Your task to perform on an android device: toggle wifi Image 0: 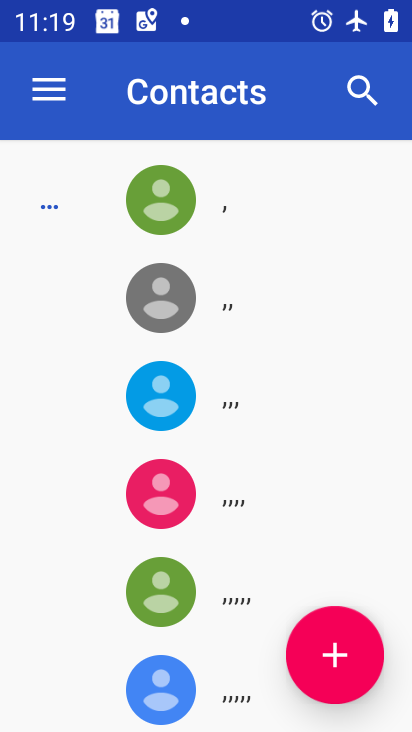
Step 0: press home button
Your task to perform on an android device: toggle wifi Image 1: 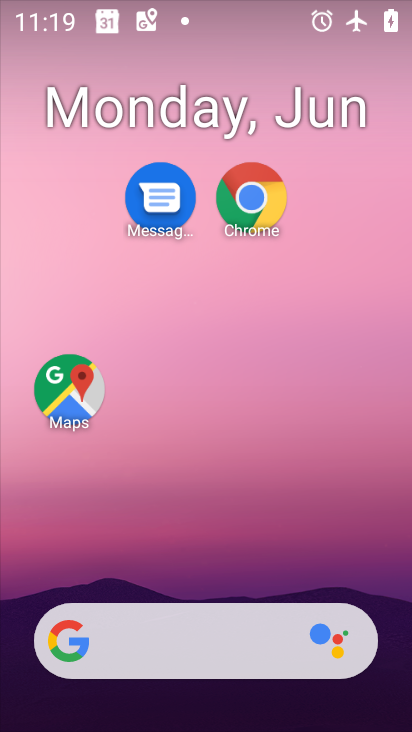
Step 1: drag from (189, 567) to (189, 10)
Your task to perform on an android device: toggle wifi Image 2: 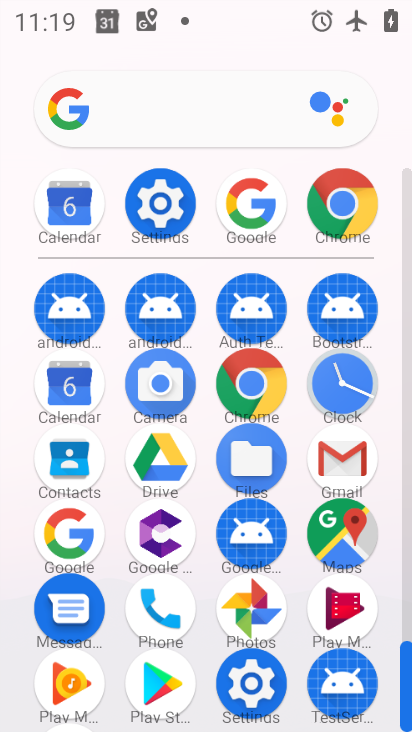
Step 2: click (155, 183)
Your task to perform on an android device: toggle wifi Image 3: 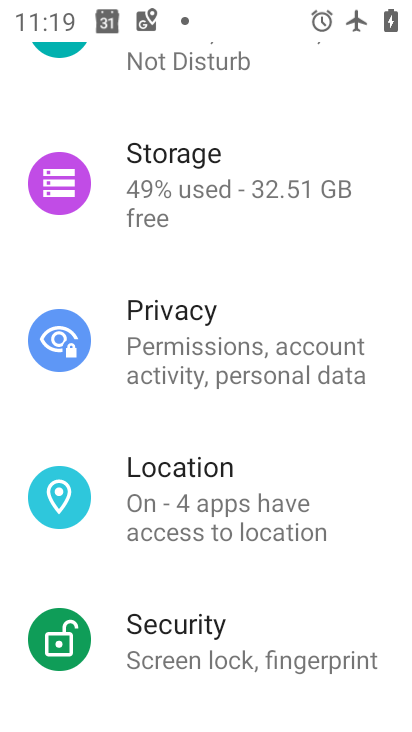
Step 3: drag from (212, 215) to (222, 496)
Your task to perform on an android device: toggle wifi Image 4: 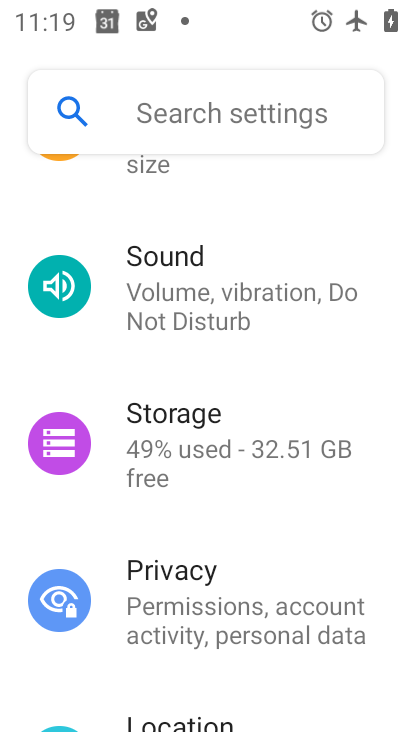
Step 4: drag from (199, 260) to (229, 492)
Your task to perform on an android device: toggle wifi Image 5: 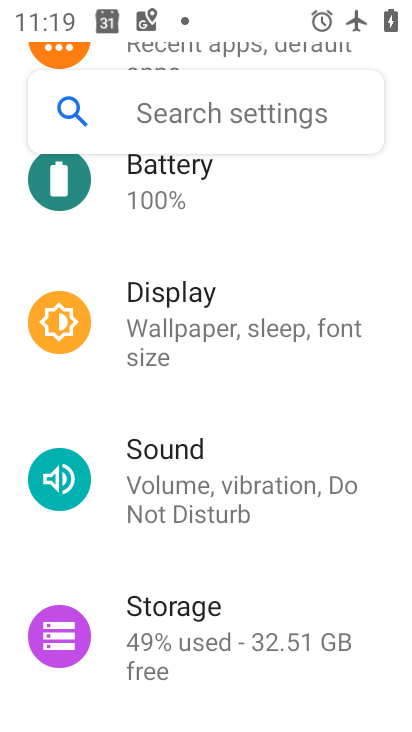
Step 5: drag from (204, 271) to (221, 490)
Your task to perform on an android device: toggle wifi Image 6: 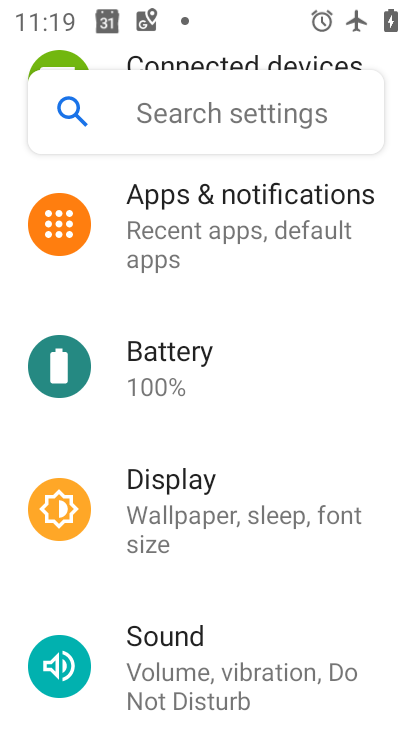
Step 6: drag from (190, 287) to (197, 503)
Your task to perform on an android device: toggle wifi Image 7: 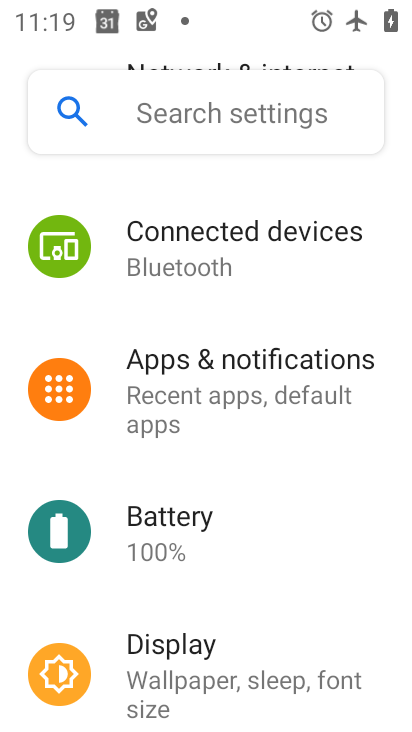
Step 7: drag from (190, 255) to (215, 561)
Your task to perform on an android device: toggle wifi Image 8: 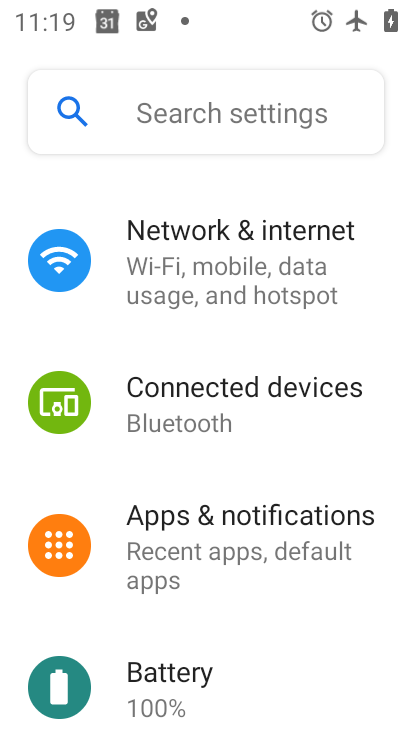
Step 8: click (210, 293)
Your task to perform on an android device: toggle wifi Image 9: 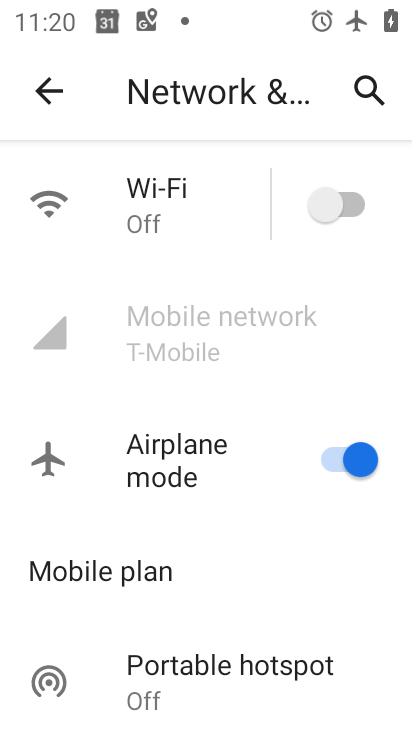
Step 9: click (352, 194)
Your task to perform on an android device: toggle wifi Image 10: 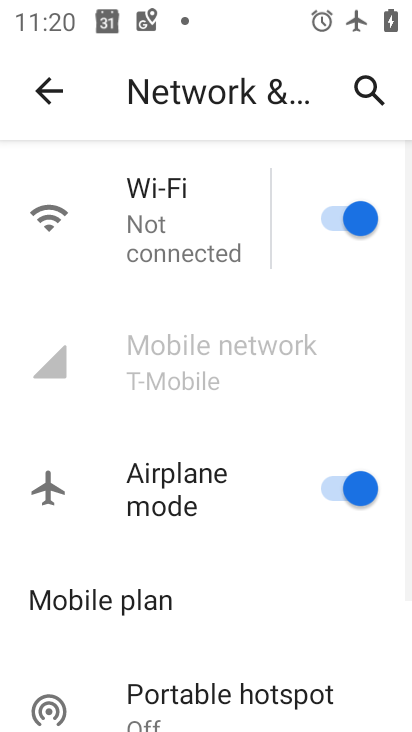
Step 10: task complete